Your task to perform on an android device: turn pop-ups off in chrome Image 0: 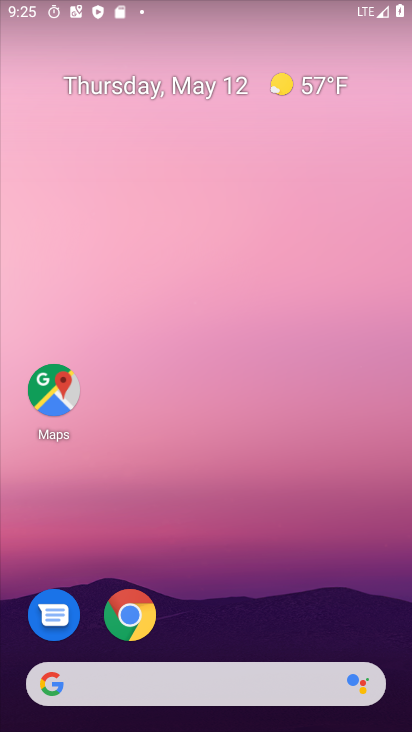
Step 0: drag from (244, 553) to (229, 54)
Your task to perform on an android device: turn pop-ups off in chrome Image 1: 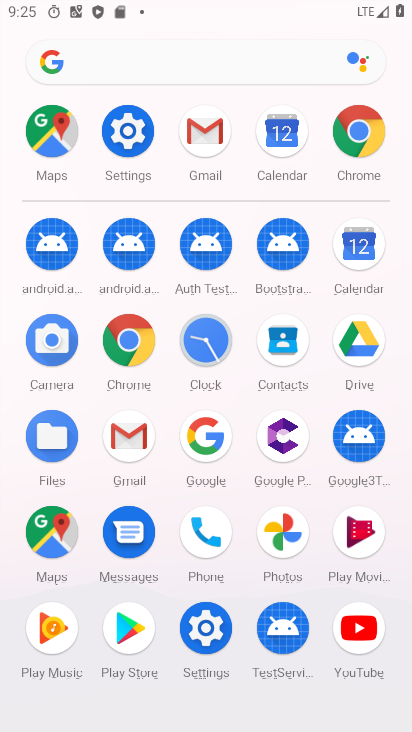
Step 1: click (363, 127)
Your task to perform on an android device: turn pop-ups off in chrome Image 2: 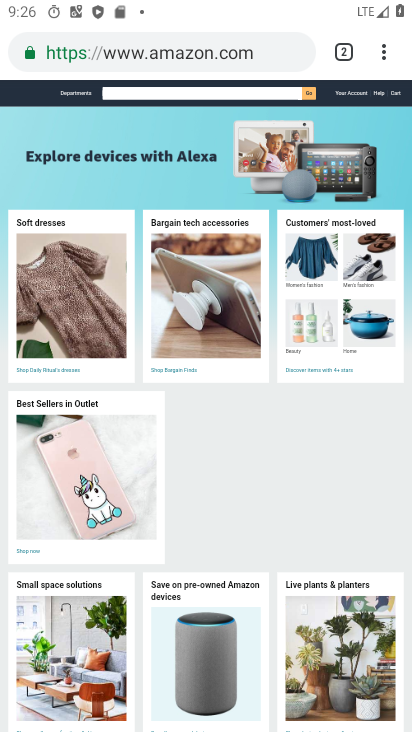
Step 2: drag from (378, 48) to (209, 628)
Your task to perform on an android device: turn pop-ups off in chrome Image 3: 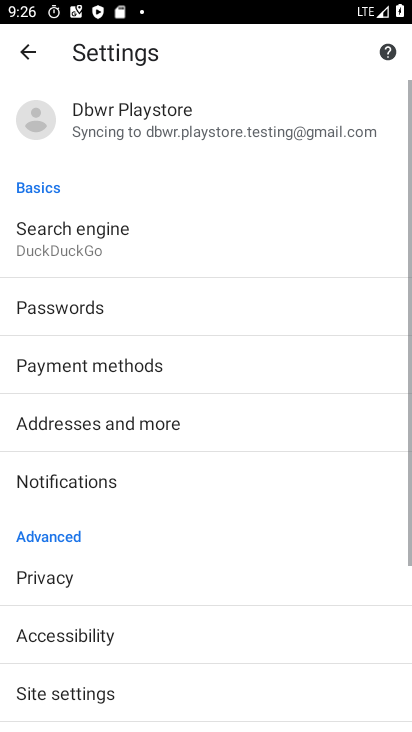
Step 3: drag from (204, 623) to (249, 263)
Your task to perform on an android device: turn pop-ups off in chrome Image 4: 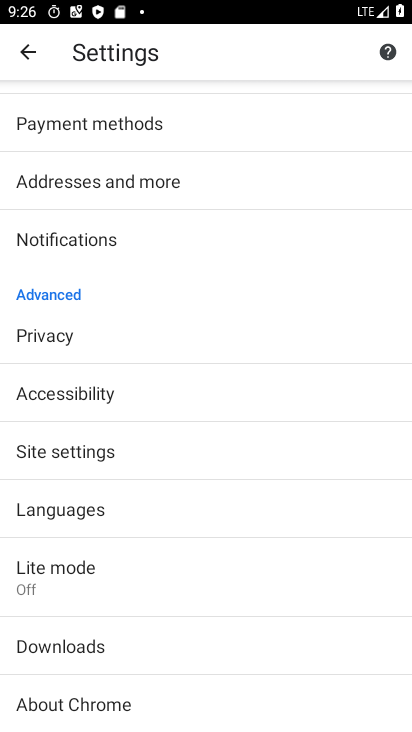
Step 4: click (113, 446)
Your task to perform on an android device: turn pop-ups off in chrome Image 5: 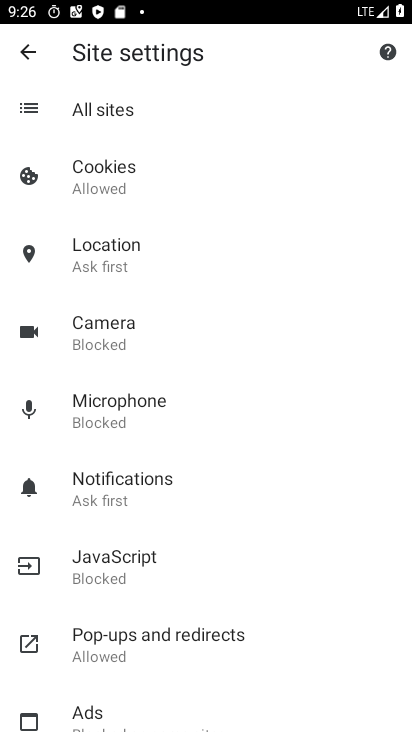
Step 5: drag from (176, 475) to (212, 158)
Your task to perform on an android device: turn pop-ups off in chrome Image 6: 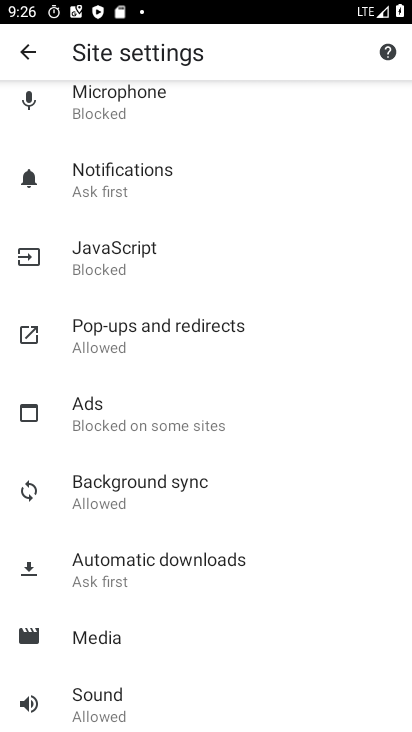
Step 6: click (148, 339)
Your task to perform on an android device: turn pop-ups off in chrome Image 7: 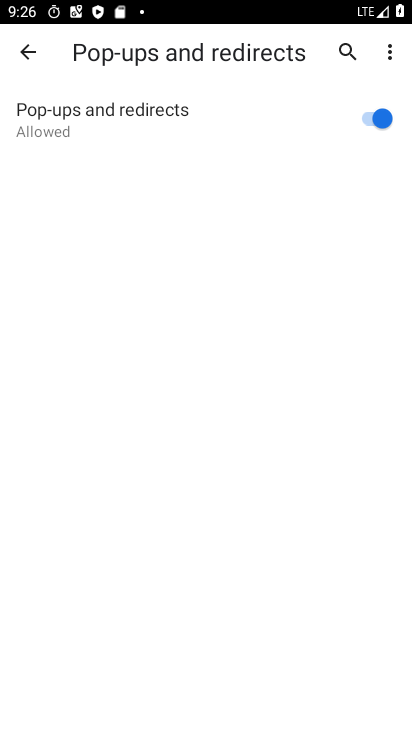
Step 7: click (376, 106)
Your task to perform on an android device: turn pop-ups off in chrome Image 8: 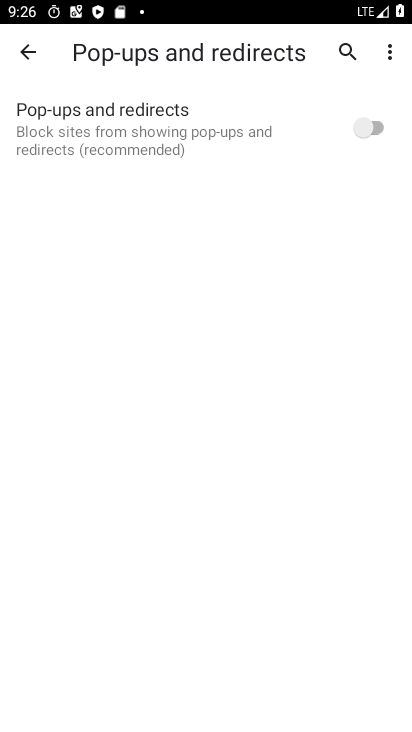
Step 8: task complete